Your task to perform on an android device: Open Chrome and go to settings Image 0: 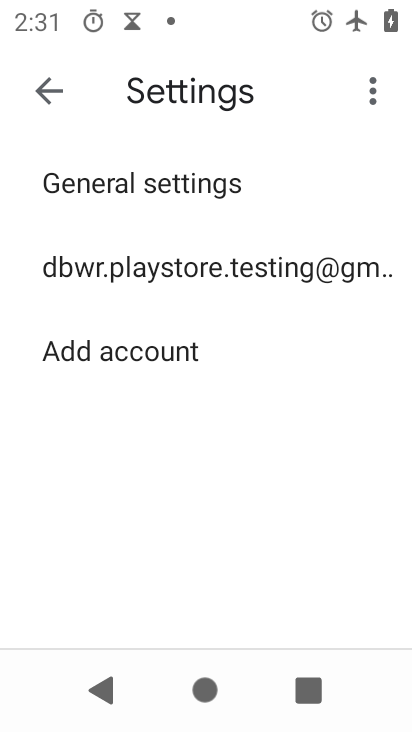
Step 0: press home button
Your task to perform on an android device: Open Chrome and go to settings Image 1: 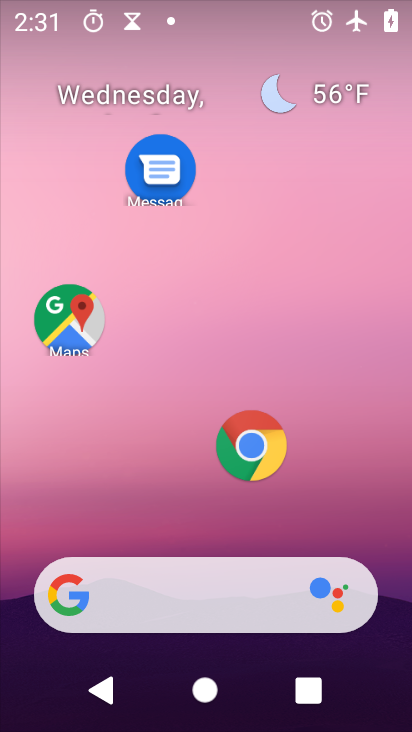
Step 1: drag from (231, 504) to (275, 138)
Your task to perform on an android device: Open Chrome and go to settings Image 2: 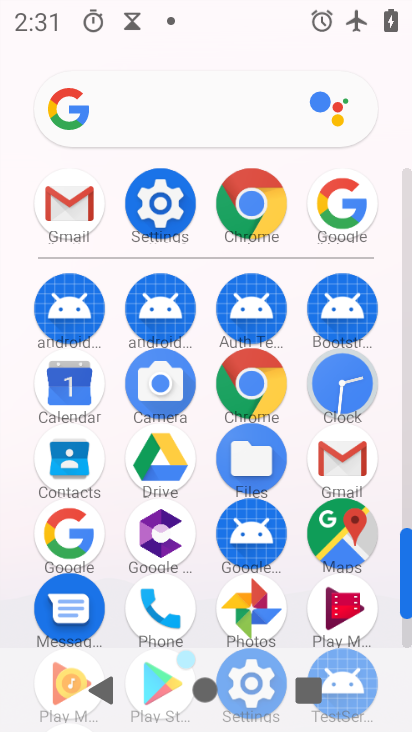
Step 2: drag from (204, 263) to (208, 97)
Your task to perform on an android device: Open Chrome and go to settings Image 3: 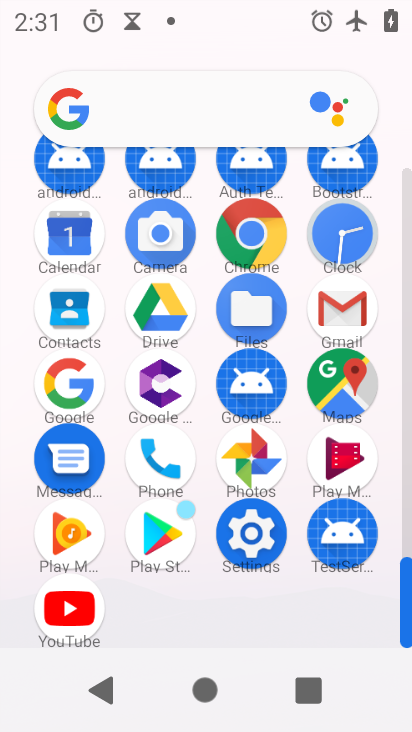
Step 3: click (262, 234)
Your task to perform on an android device: Open Chrome and go to settings Image 4: 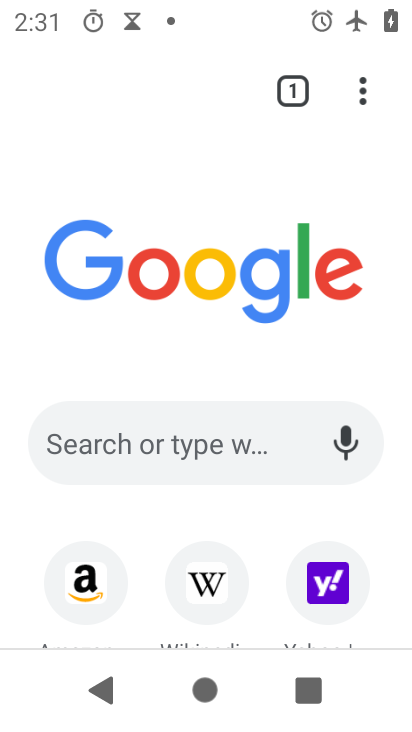
Step 4: click (355, 101)
Your task to perform on an android device: Open Chrome and go to settings Image 5: 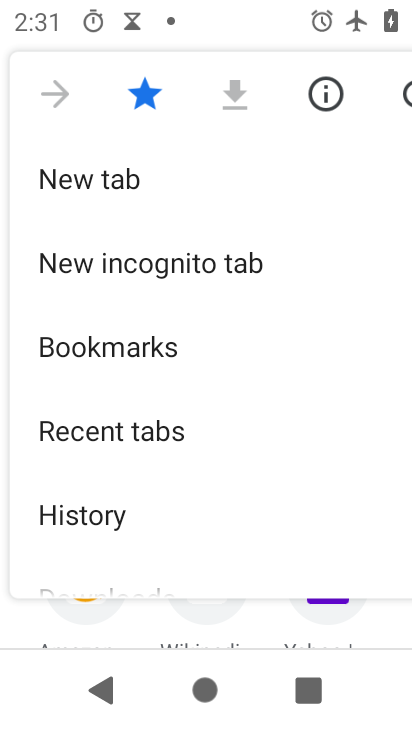
Step 5: drag from (145, 489) to (162, 205)
Your task to perform on an android device: Open Chrome and go to settings Image 6: 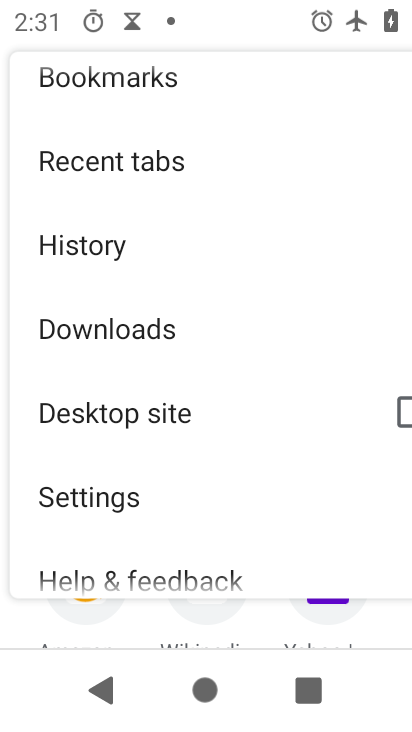
Step 6: click (155, 509)
Your task to perform on an android device: Open Chrome and go to settings Image 7: 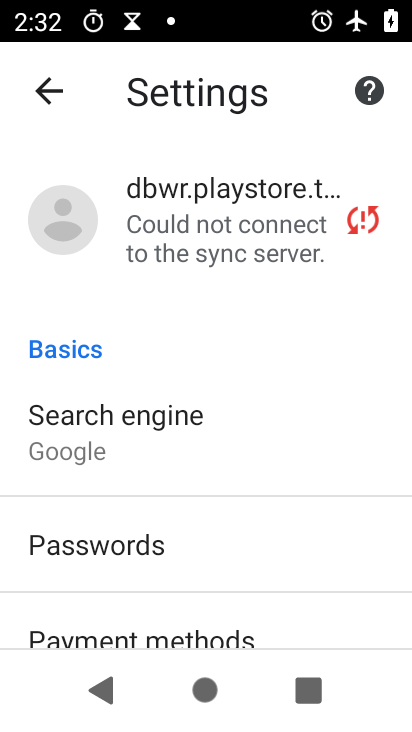
Step 7: task complete